Your task to perform on an android device: turn off translation in the chrome app Image 0: 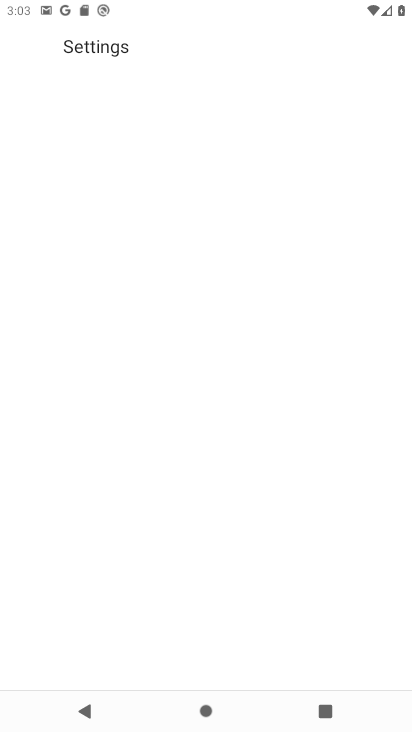
Step 0: drag from (281, 586) to (270, 65)
Your task to perform on an android device: turn off translation in the chrome app Image 1: 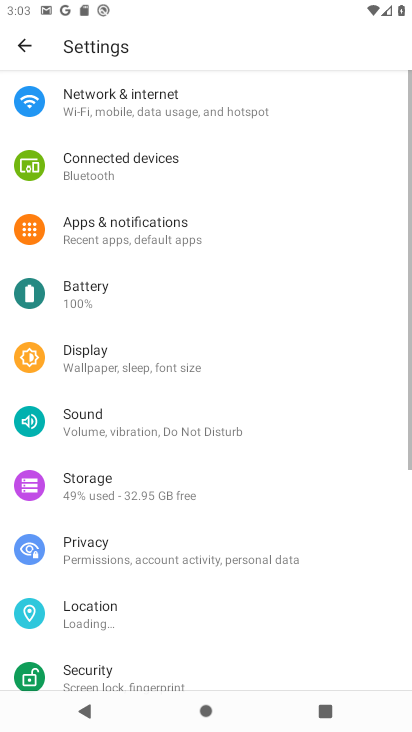
Step 1: press home button
Your task to perform on an android device: turn off translation in the chrome app Image 2: 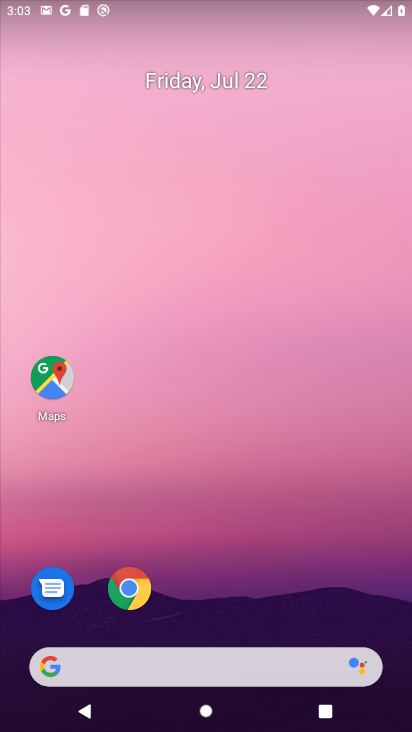
Step 2: drag from (309, 590) to (280, 130)
Your task to perform on an android device: turn off translation in the chrome app Image 3: 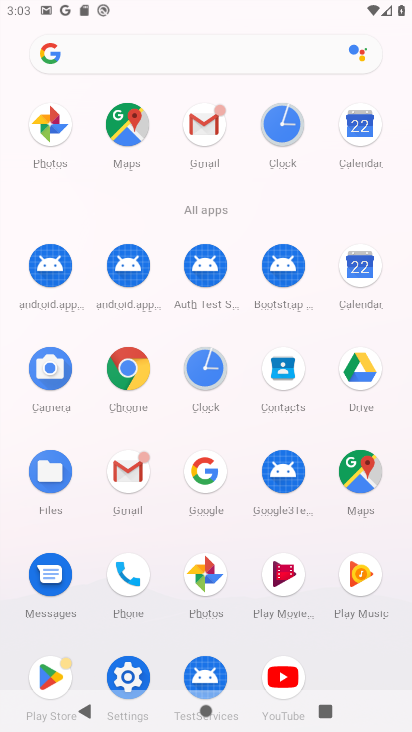
Step 3: click (130, 359)
Your task to perform on an android device: turn off translation in the chrome app Image 4: 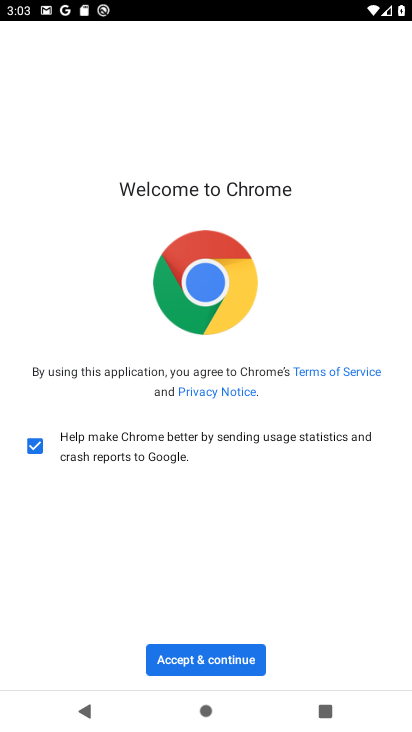
Step 4: click (241, 669)
Your task to perform on an android device: turn off translation in the chrome app Image 5: 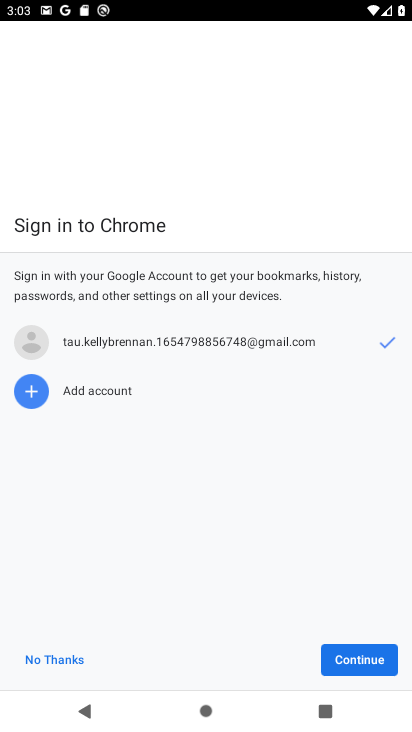
Step 5: click (373, 659)
Your task to perform on an android device: turn off translation in the chrome app Image 6: 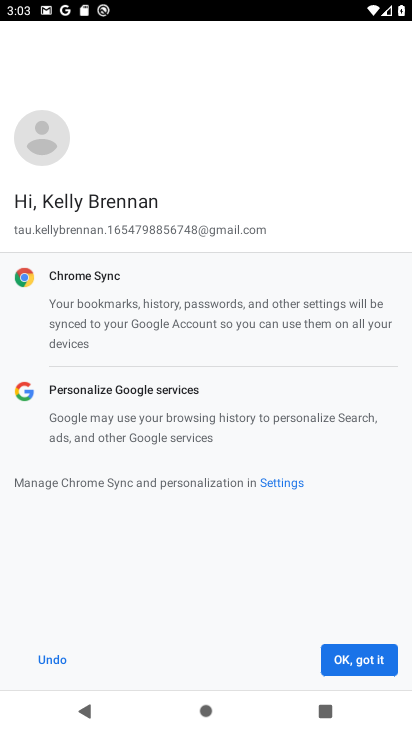
Step 6: click (373, 659)
Your task to perform on an android device: turn off translation in the chrome app Image 7: 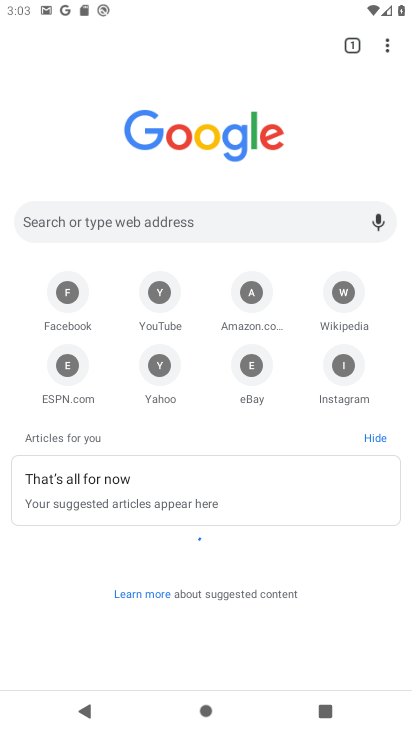
Step 7: click (389, 39)
Your task to perform on an android device: turn off translation in the chrome app Image 8: 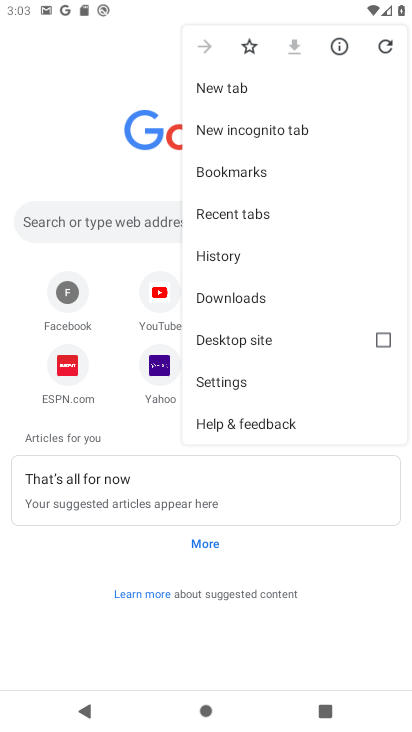
Step 8: click (278, 380)
Your task to perform on an android device: turn off translation in the chrome app Image 9: 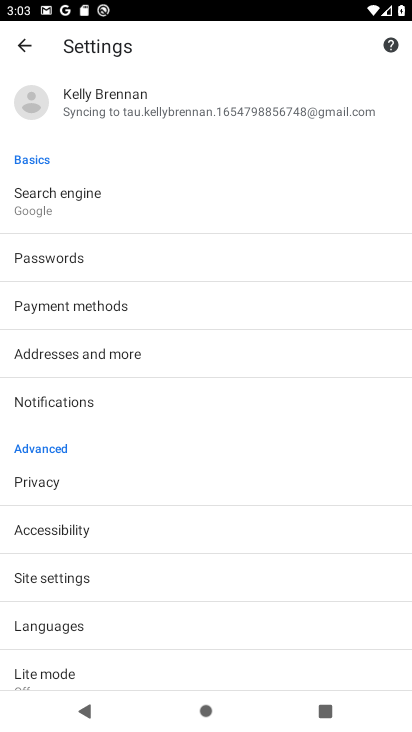
Step 9: click (96, 637)
Your task to perform on an android device: turn off translation in the chrome app Image 10: 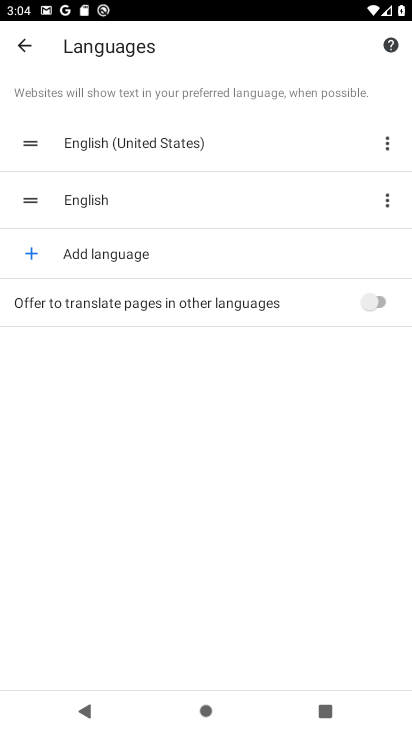
Step 10: task complete